Your task to perform on an android device: set default search engine in the chrome app Image 0: 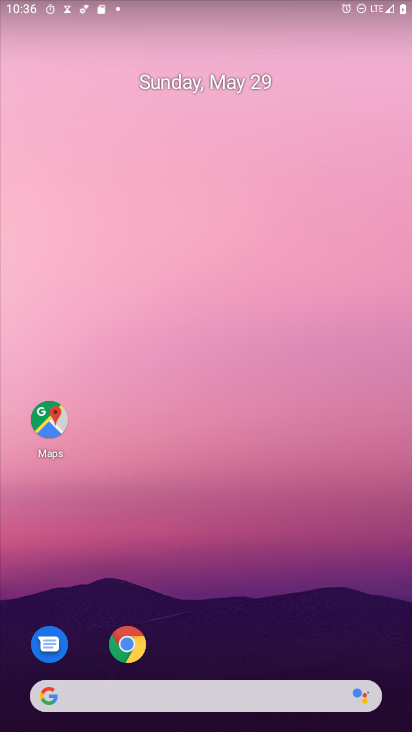
Step 0: click (140, 649)
Your task to perform on an android device: set default search engine in the chrome app Image 1: 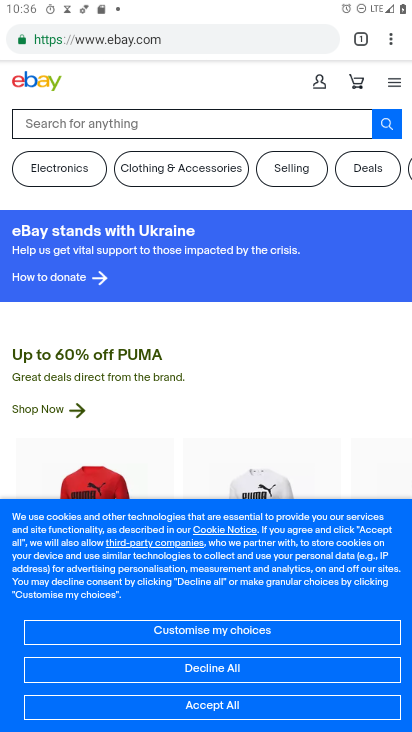
Step 1: click (394, 44)
Your task to perform on an android device: set default search engine in the chrome app Image 2: 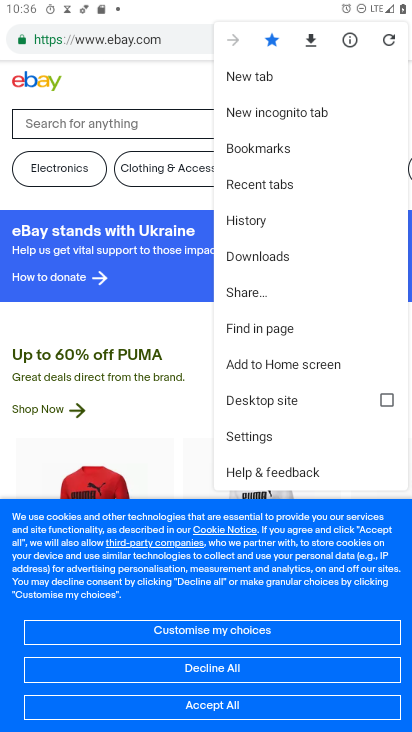
Step 2: click (249, 441)
Your task to perform on an android device: set default search engine in the chrome app Image 3: 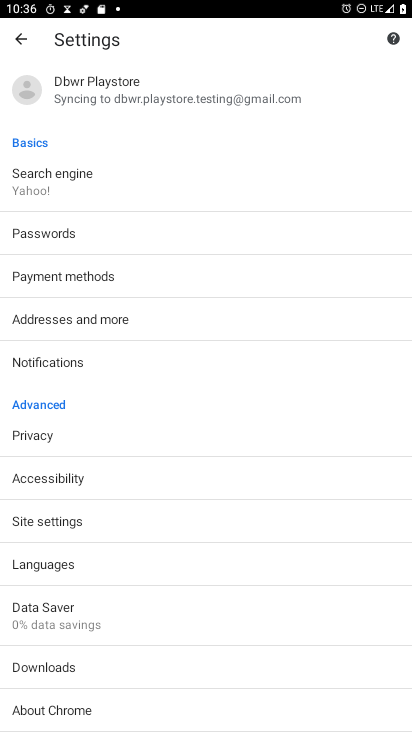
Step 3: click (64, 525)
Your task to perform on an android device: set default search engine in the chrome app Image 4: 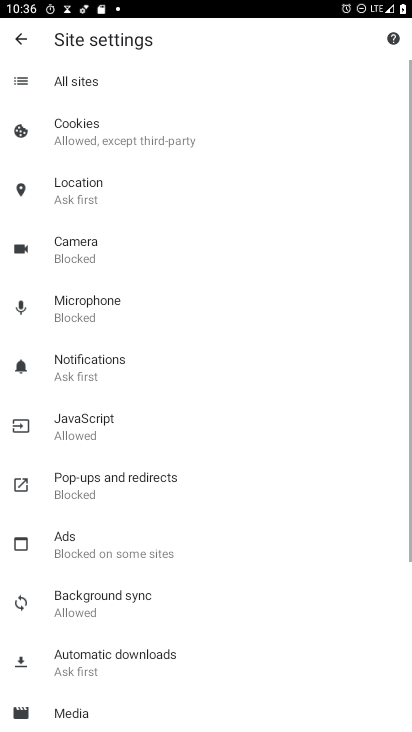
Step 4: click (23, 46)
Your task to perform on an android device: set default search engine in the chrome app Image 5: 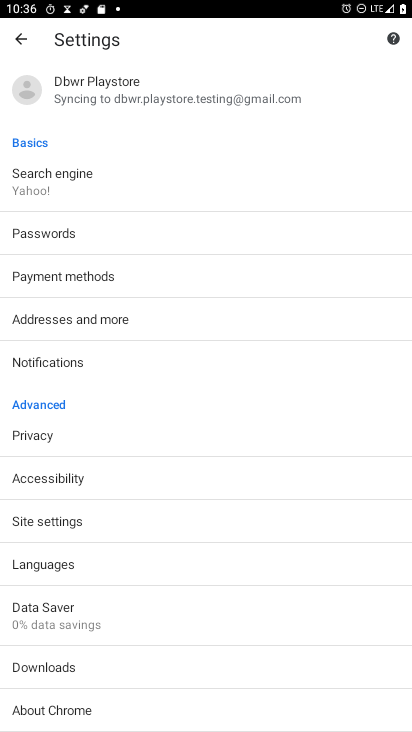
Step 5: click (85, 178)
Your task to perform on an android device: set default search engine in the chrome app Image 6: 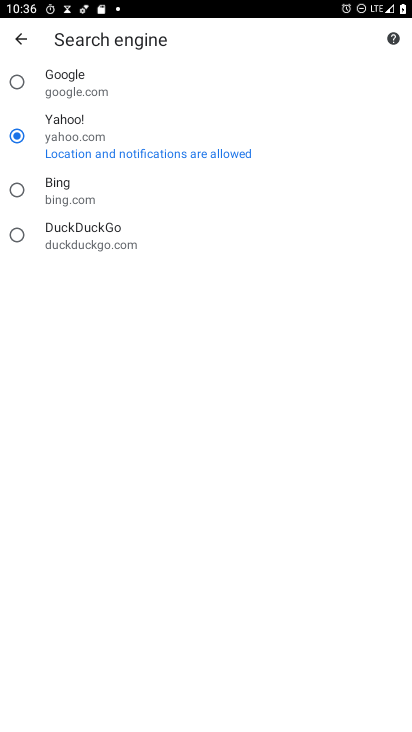
Step 6: click (74, 80)
Your task to perform on an android device: set default search engine in the chrome app Image 7: 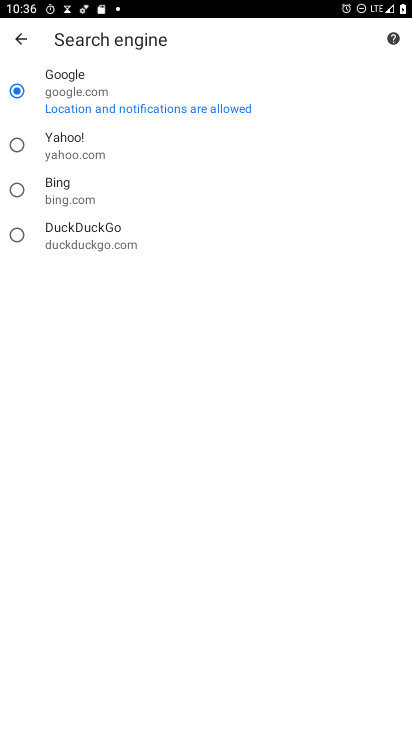
Step 7: task complete